Your task to perform on an android device: What's the weather going to be this weekend? Image 0: 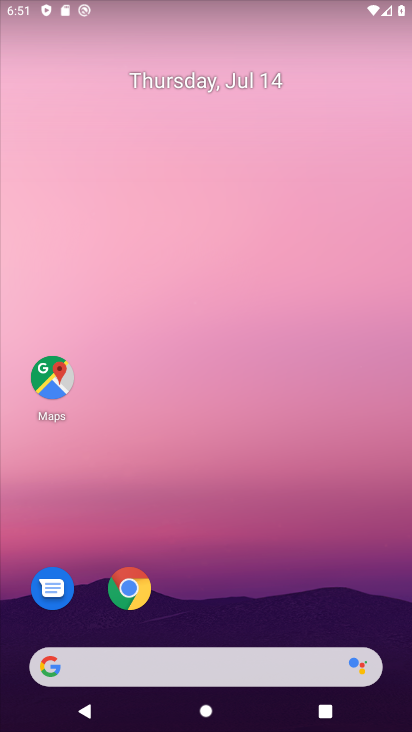
Step 0: drag from (364, 474) to (219, 19)
Your task to perform on an android device: What's the weather going to be this weekend? Image 1: 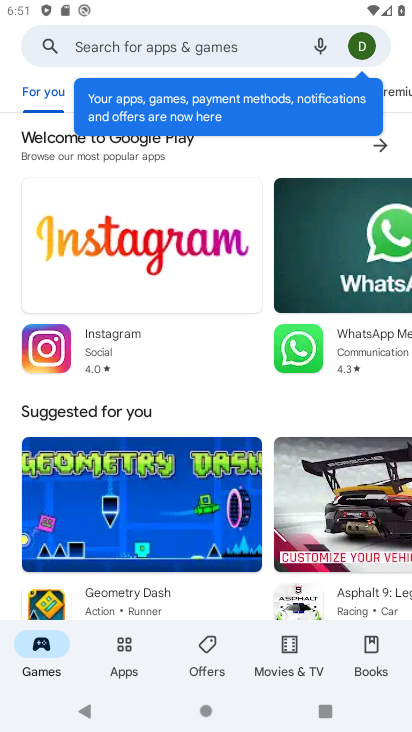
Step 1: press home button
Your task to perform on an android device: What's the weather going to be this weekend? Image 2: 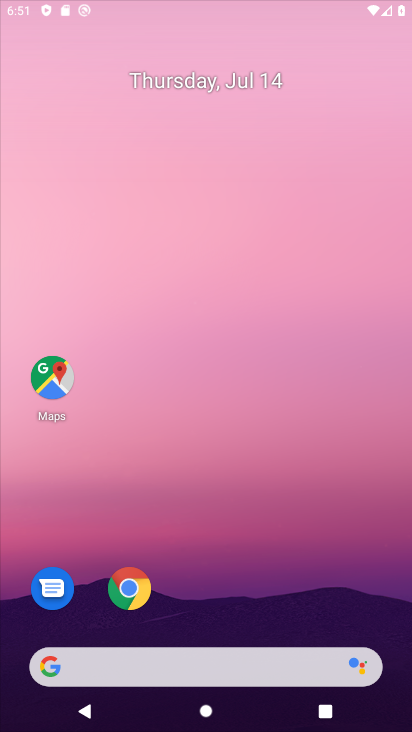
Step 2: drag from (349, 471) to (201, 44)
Your task to perform on an android device: What's the weather going to be this weekend? Image 3: 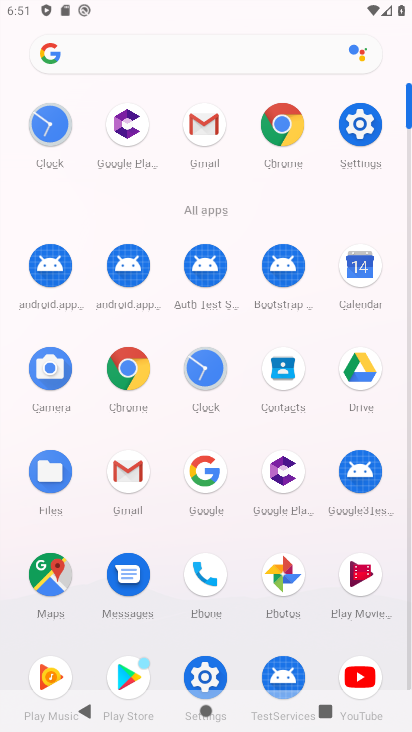
Step 3: click (217, 468)
Your task to perform on an android device: What's the weather going to be this weekend? Image 4: 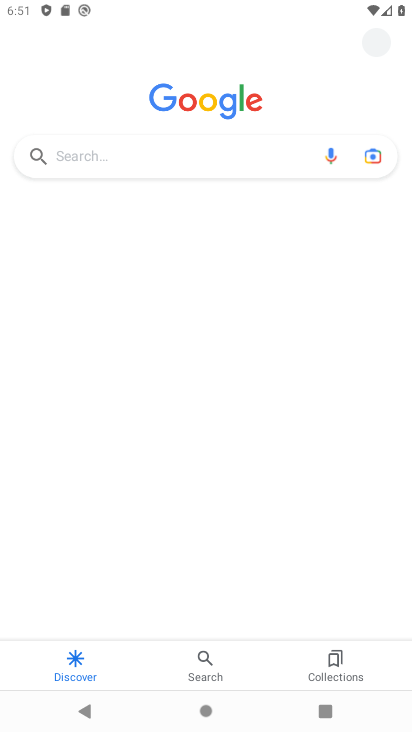
Step 4: click (143, 153)
Your task to perform on an android device: What's the weather going to be this weekend? Image 5: 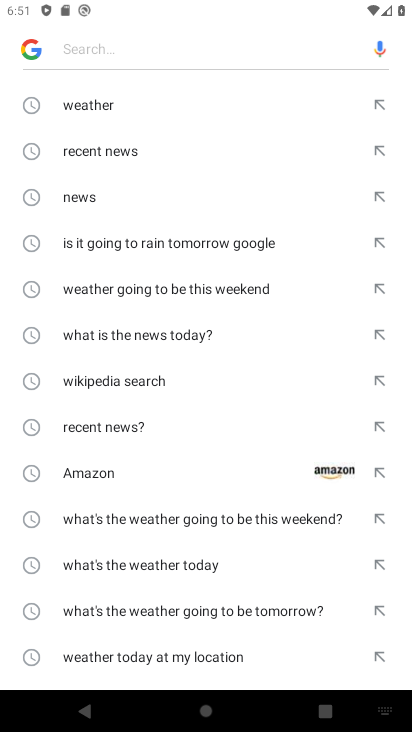
Step 5: click (201, 526)
Your task to perform on an android device: What's the weather going to be this weekend? Image 6: 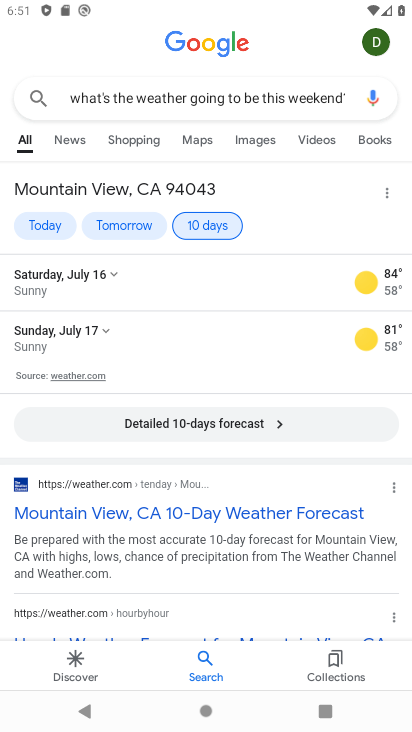
Step 6: task complete